Your task to perform on an android device: Open Chrome and go to settings Image 0: 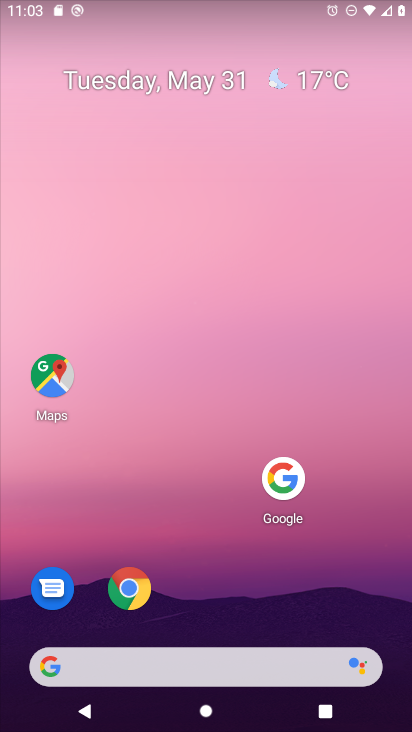
Step 0: click (130, 598)
Your task to perform on an android device: Open Chrome and go to settings Image 1: 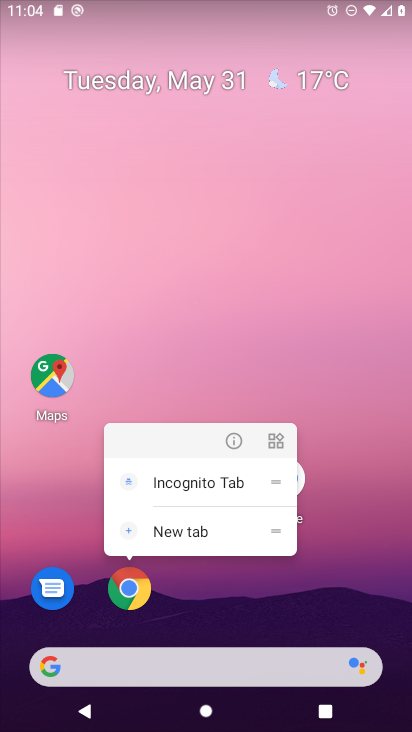
Step 1: click (128, 585)
Your task to perform on an android device: Open Chrome and go to settings Image 2: 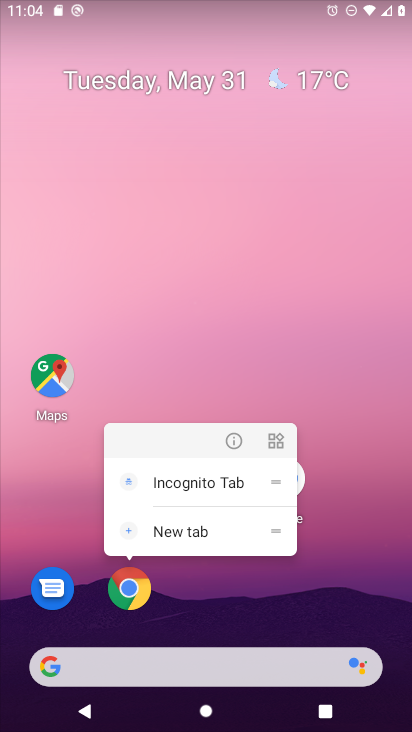
Step 2: click (128, 589)
Your task to perform on an android device: Open Chrome and go to settings Image 3: 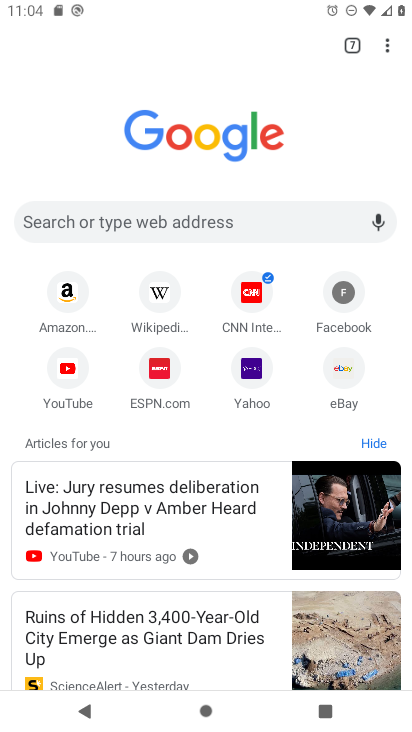
Step 3: task complete